Your task to perform on an android device: turn off javascript in the chrome app Image 0: 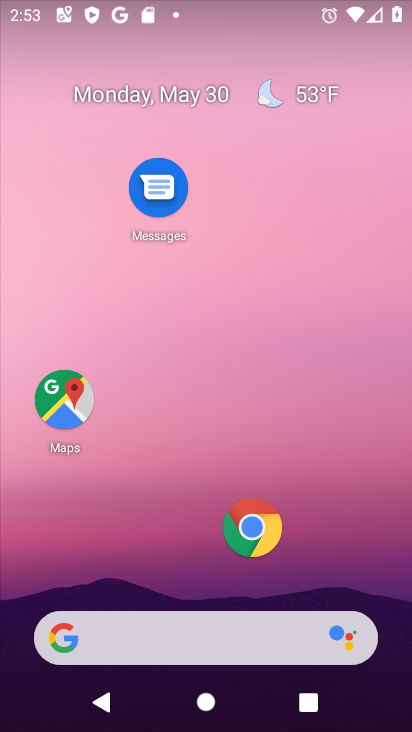
Step 0: drag from (335, 579) to (243, 170)
Your task to perform on an android device: turn off javascript in the chrome app Image 1: 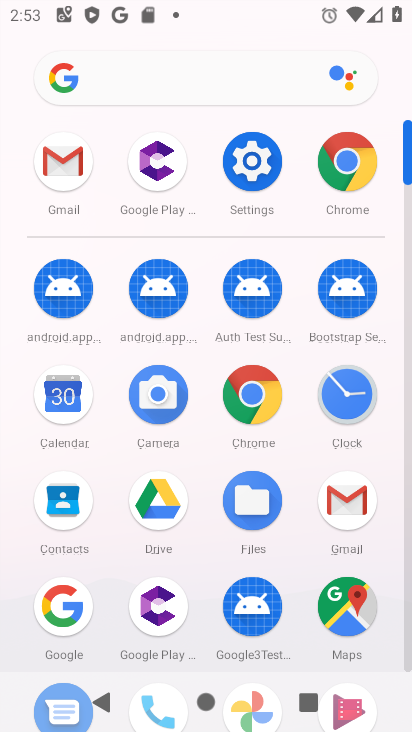
Step 1: click (243, 427)
Your task to perform on an android device: turn off javascript in the chrome app Image 2: 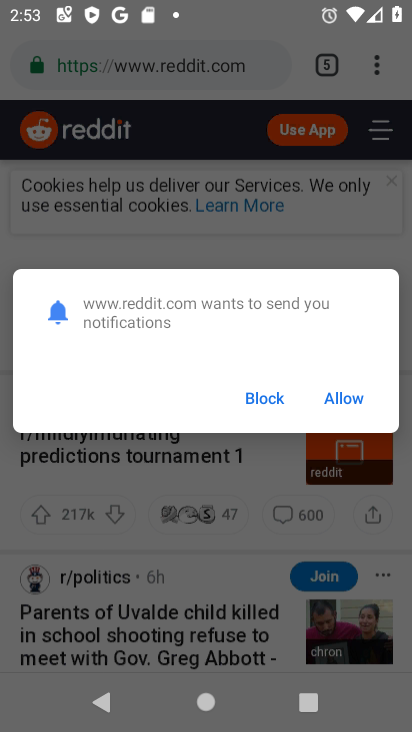
Step 2: click (336, 402)
Your task to perform on an android device: turn off javascript in the chrome app Image 3: 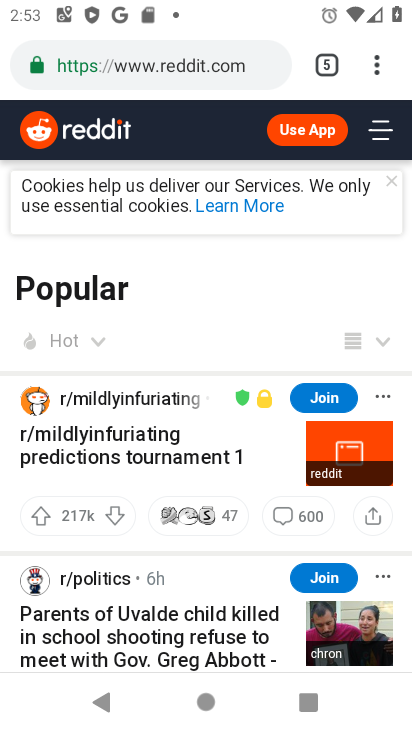
Step 3: click (381, 63)
Your task to perform on an android device: turn off javascript in the chrome app Image 4: 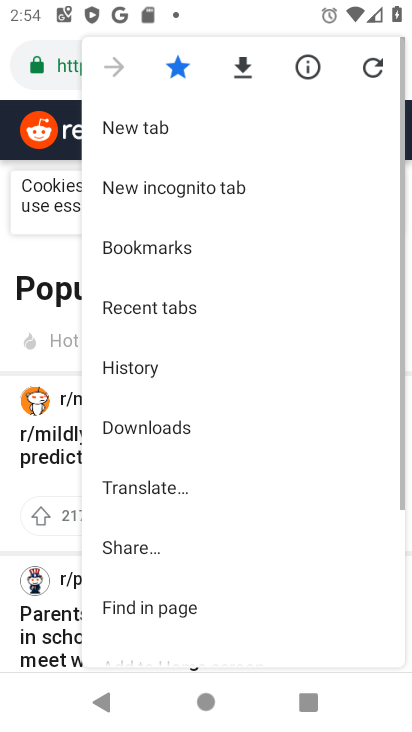
Step 4: drag from (223, 562) to (225, 266)
Your task to perform on an android device: turn off javascript in the chrome app Image 5: 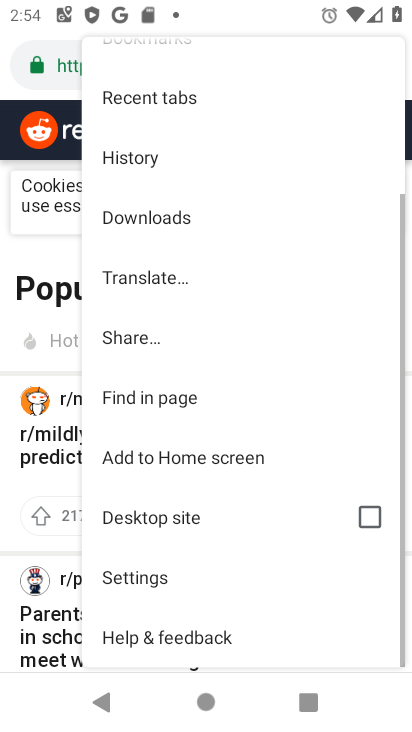
Step 5: click (192, 578)
Your task to perform on an android device: turn off javascript in the chrome app Image 6: 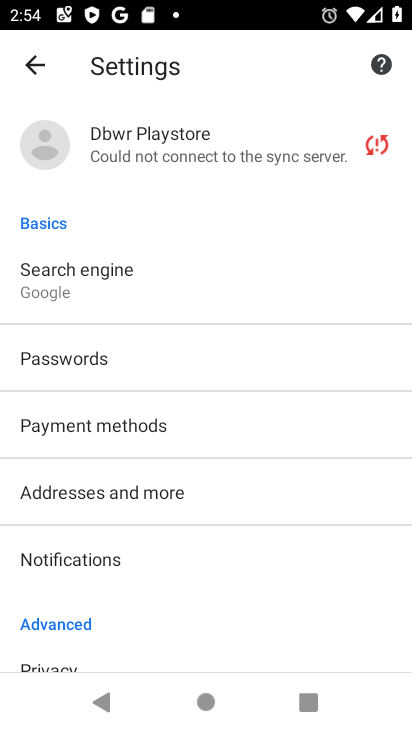
Step 6: drag from (207, 598) to (238, 230)
Your task to perform on an android device: turn off javascript in the chrome app Image 7: 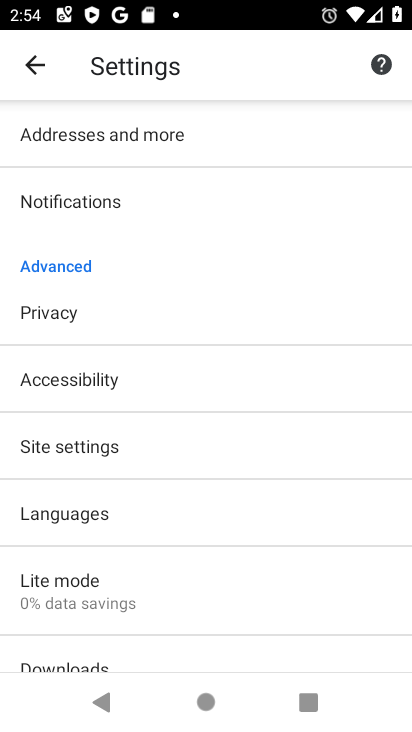
Step 7: click (113, 459)
Your task to perform on an android device: turn off javascript in the chrome app Image 8: 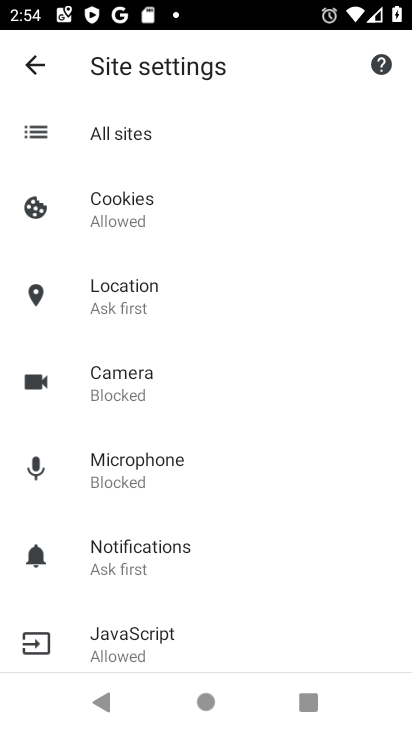
Step 8: click (187, 650)
Your task to perform on an android device: turn off javascript in the chrome app Image 9: 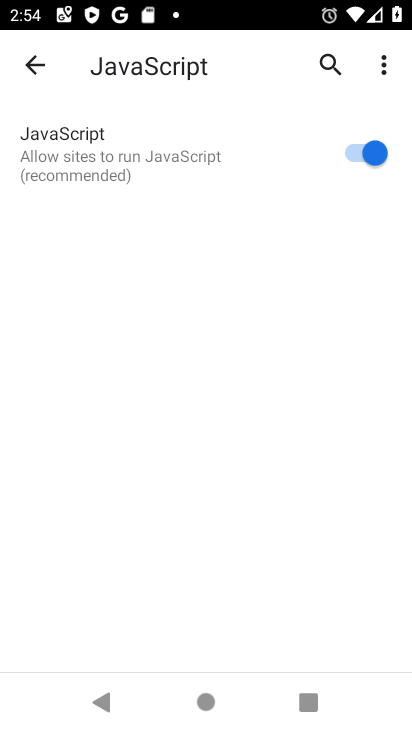
Step 9: click (347, 160)
Your task to perform on an android device: turn off javascript in the chrome app Image 10: 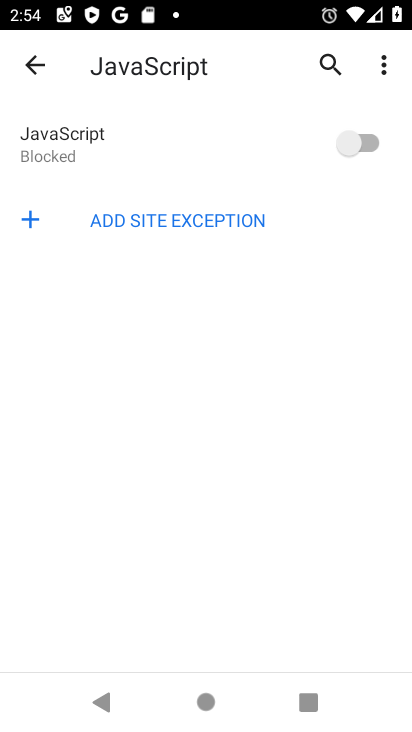
Step 10: task complete